Your task to perform on an android device: toggle translation in the chrome app Image 0: 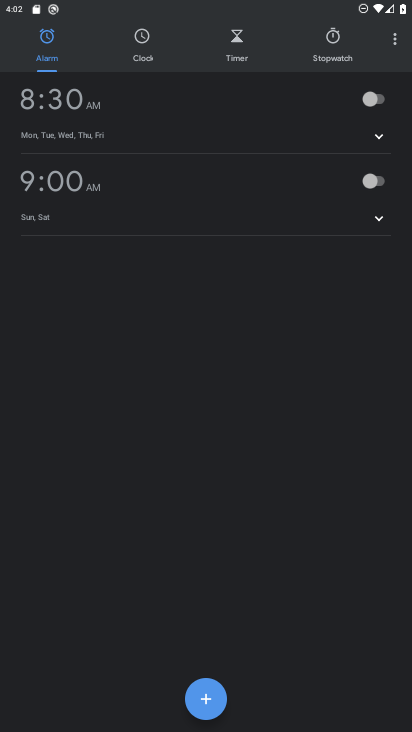
Step 0: press home button
Your task to perform on an android device: toggle translation in the chrome app Image 1: 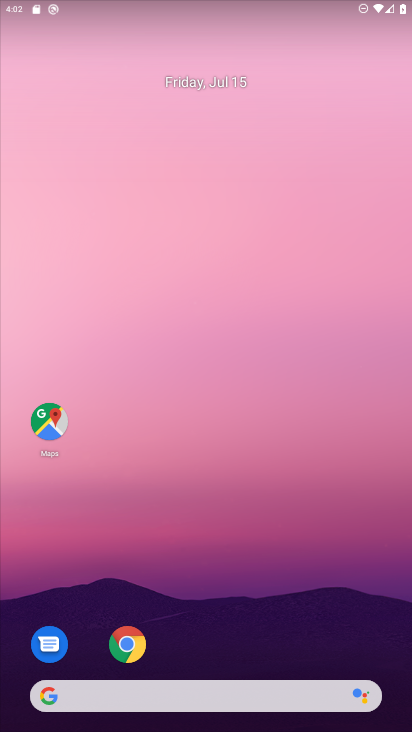
Step 1: click (132, 640)
Your task to perform on an android device: toggle translation in the chrome app Image 2: 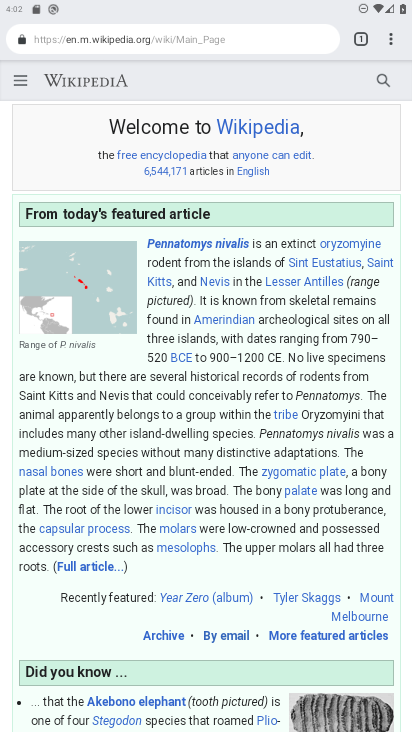
Step 2: click (392, 43)
Your task to perform on an android device: toggle translation in the chrome app Image 3: 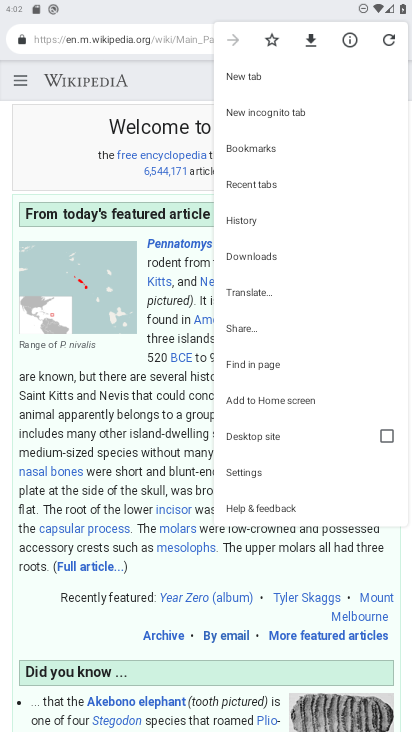
Step 3: click (270, 467)
Your task to perform on an android device: toggle translation in the chrome app Image 4: 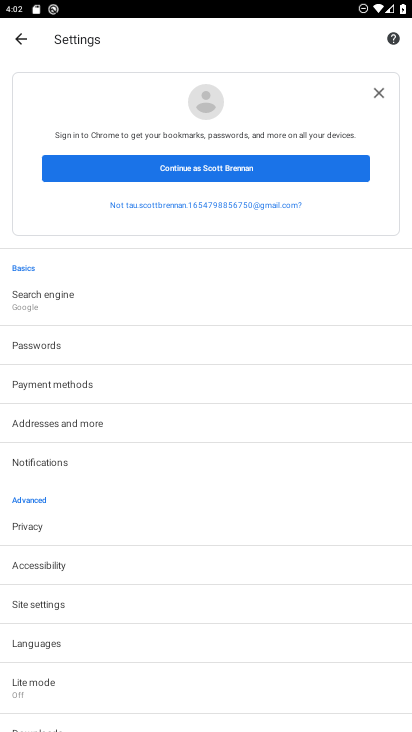
Step 4: click (73, 646)
Your task to perform on an android device: toggle translation in the chrome app Image 5: 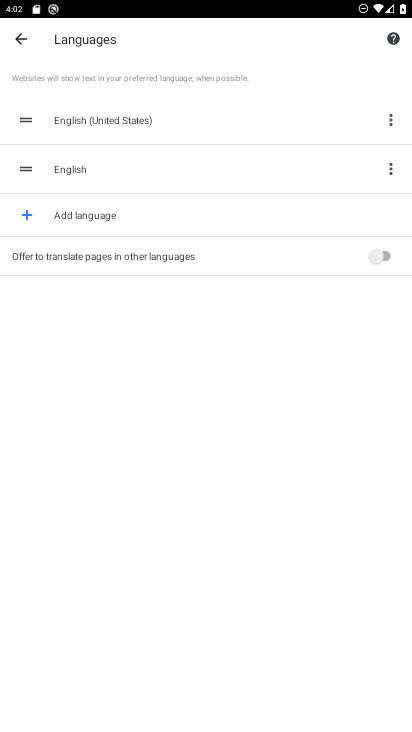
Step 5: click (383, 251)
Your task to perform on an android device: toggle translation in the chrome app Image 6: 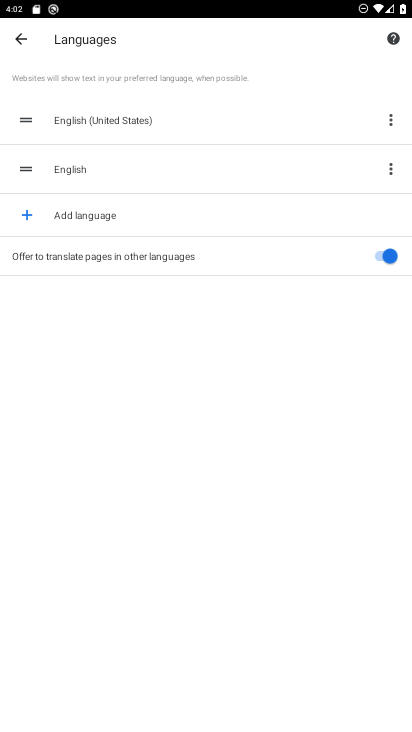
Step 6: task complete